Your task to perform on an android device: What's the weather going to be tomorrow? Image 0: 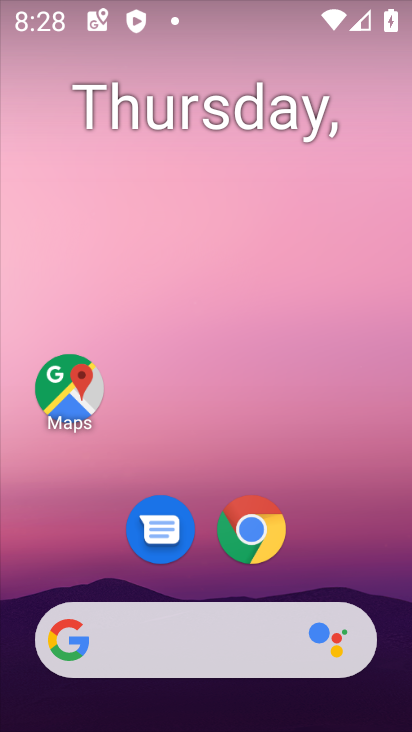
Step 0: drag from (170, 724) to (172, 116)
Your task to perform on an android device: What's the weather going to be tomorrow? Image 1: 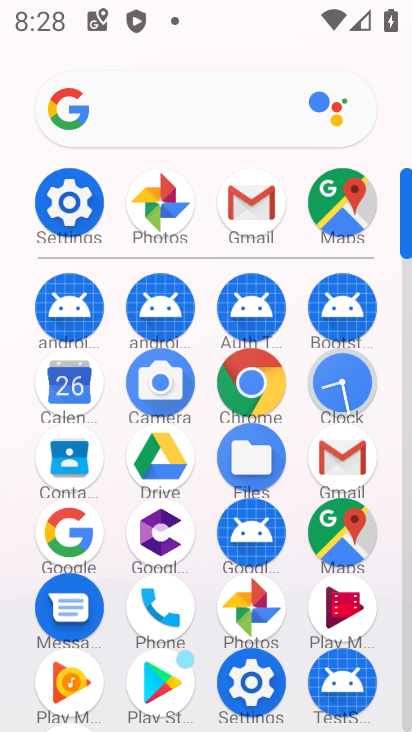
Step 1: click (78, 533)
Your task to perform on an android device: What's the weather going to be tomorrow? Image 2: 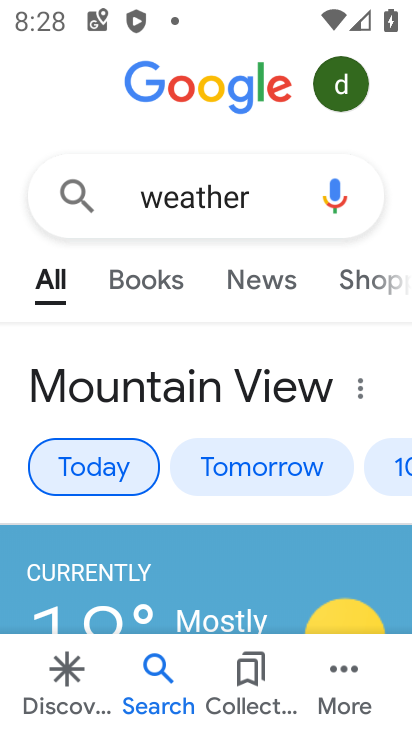
Step 2: click (254, 473)
Your task to perform on an android device: What's the weather going to be tomorrow? Image 3: 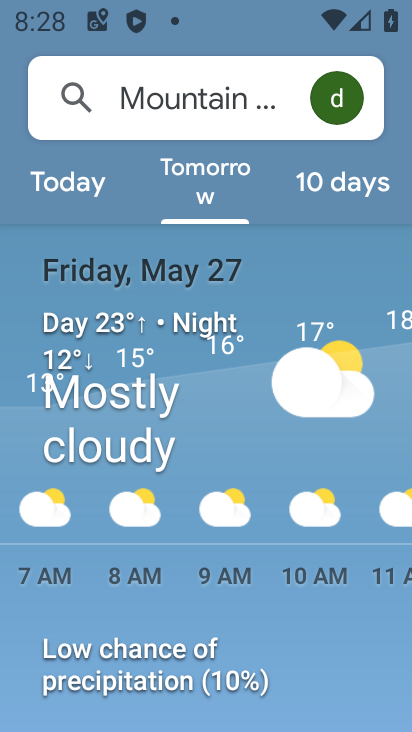
Step 3: task complete